Your task to perform on an android device: toggle data saver in the chrome app Image 0: 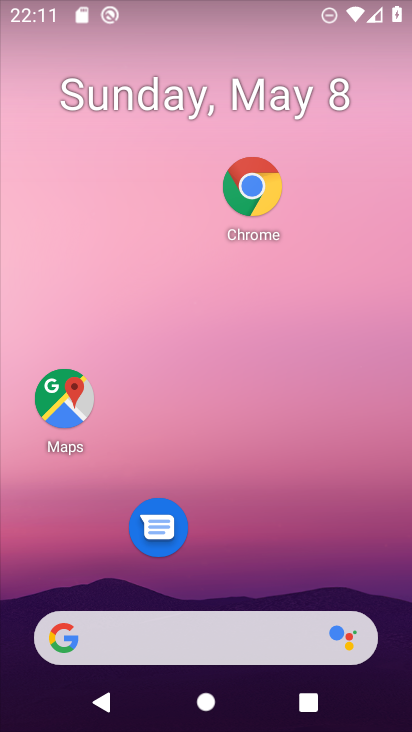
Step 0: drag from (271, 554) to (295, 307)
Your task to perform on an android device: toggle data saver in the chrome app Image 1: 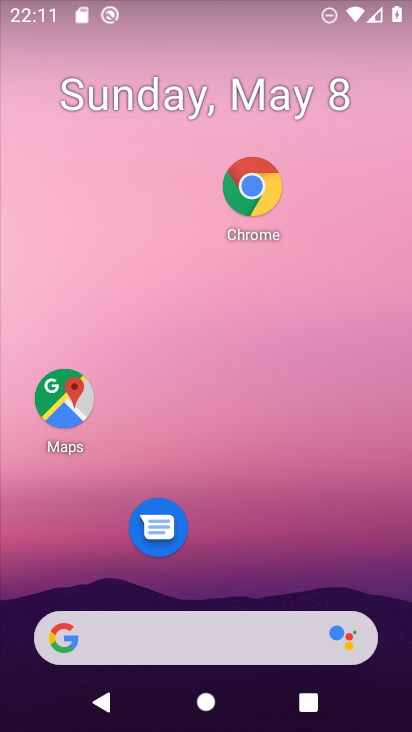
Step 1: drag from (259, 588) to (325, 303)
Your task to perform on an android device: toggle data saver in the chrome app Image 2: 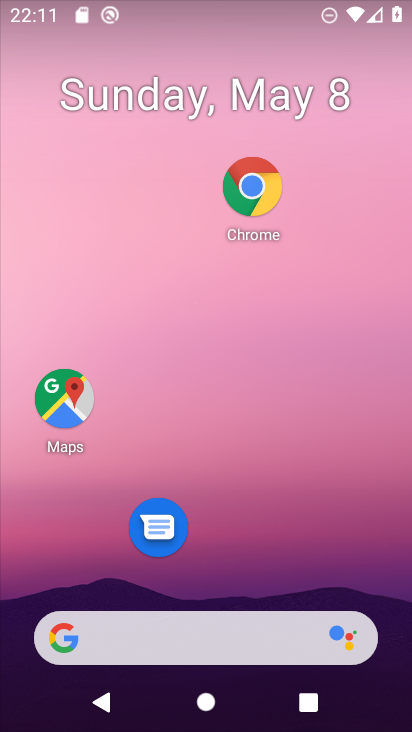
Step 2: drag from (275, 527) to (293, 230)
Your task to perform on an android device: toggle data saver in the chrome app Image 3: 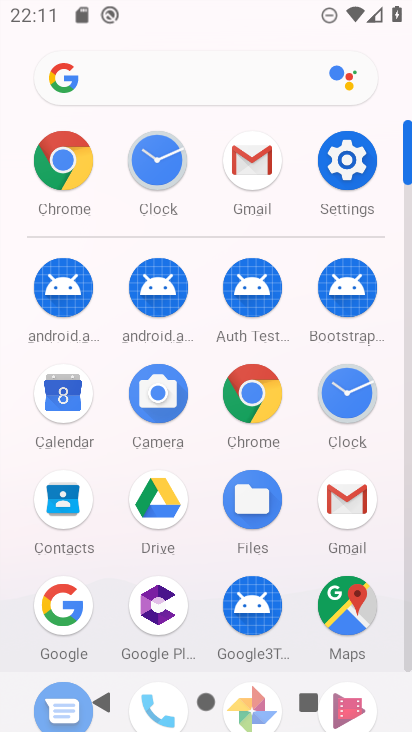
Step 3: click (245, 390)
Your task to perform on an android device: toggle data saver in the chrome app Image 4: 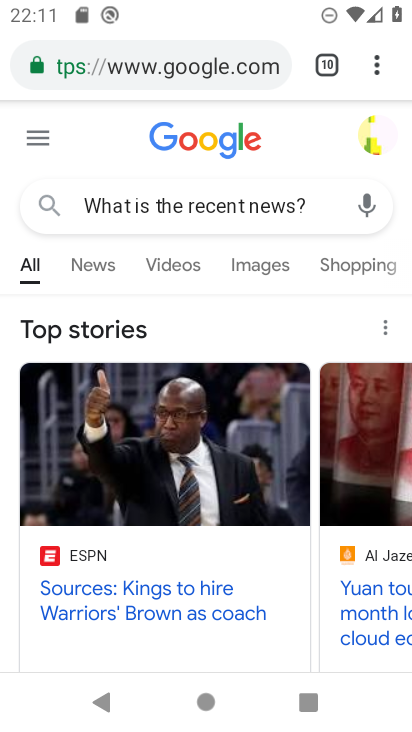
Step 4: click (365, 63)
Your task to perform on an android device: toggle data saver in the chrome app Image 5: 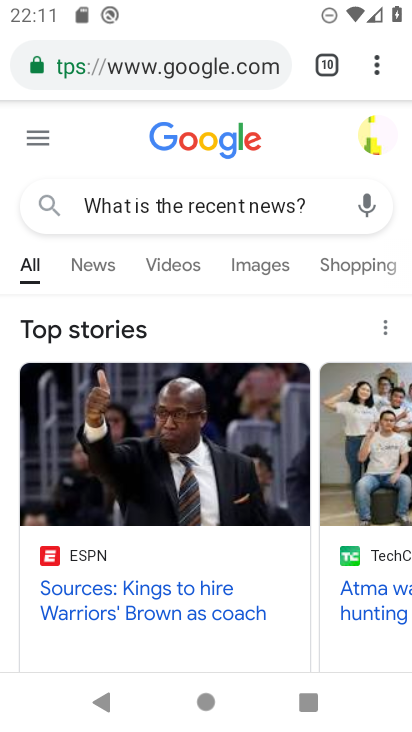
Step 5: click (367, 61)
Your task to perform on an android device: toggle data saver in the chrome app Image 6: 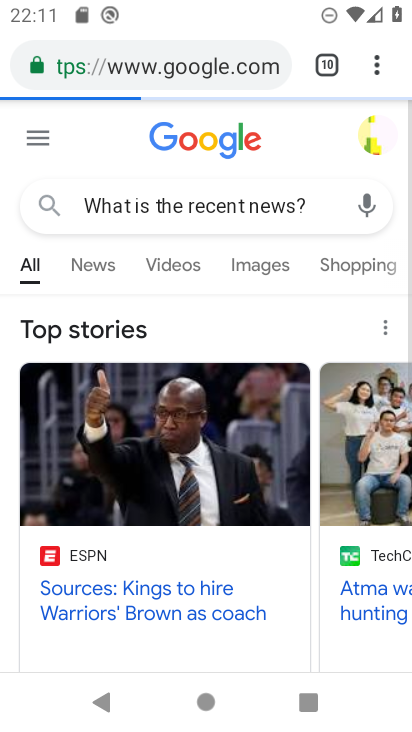
Step 6: click (371, 68)
Your task to perform on an android device: toggle data saver in the chrome app Image 7: 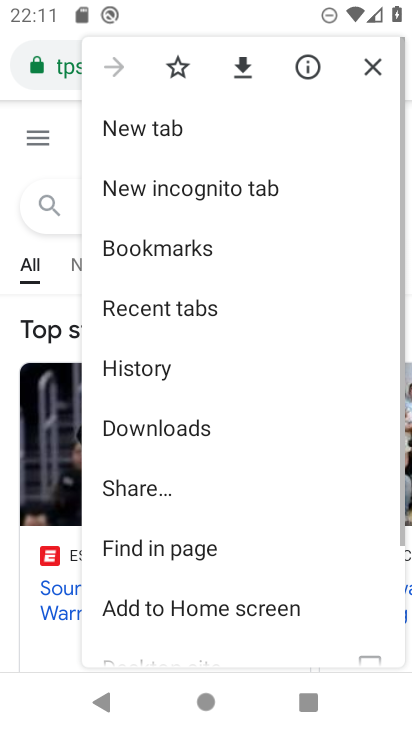
Step 7: drag from (195, 591) to (296, 158)
Your task to perform on an android device: toggle data saver in the chrome app Image 8: 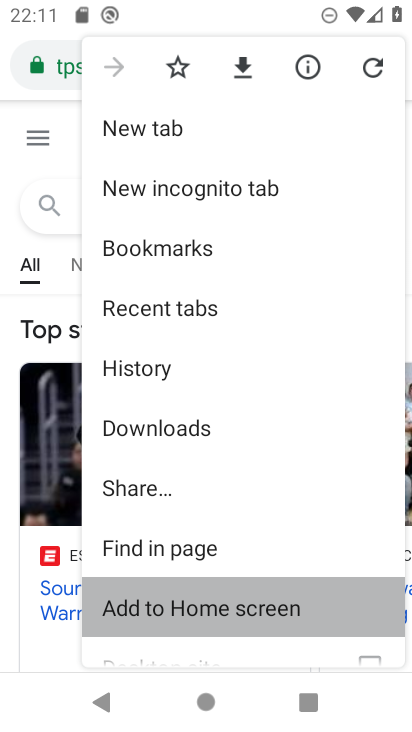
Step 8: drag from (277, 505) to (340, 201)
Your task to perform on an android device: toggle data saver in the chrome app Image 9: 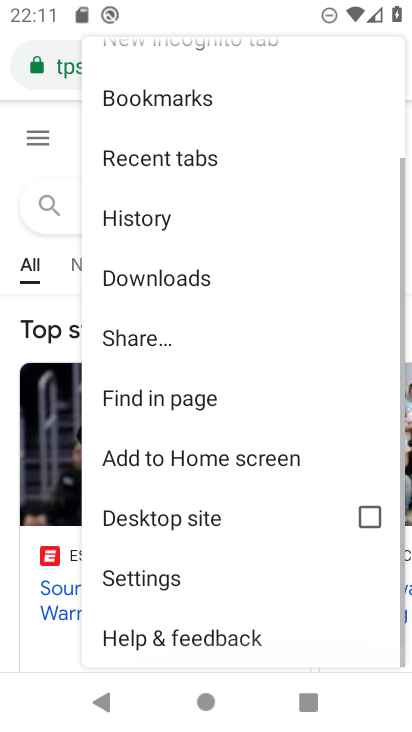
Step 9: drag from (238, 569) to (262, 223)
Your task to perform on an android device: toggle data saver in the chrome app Image 10: 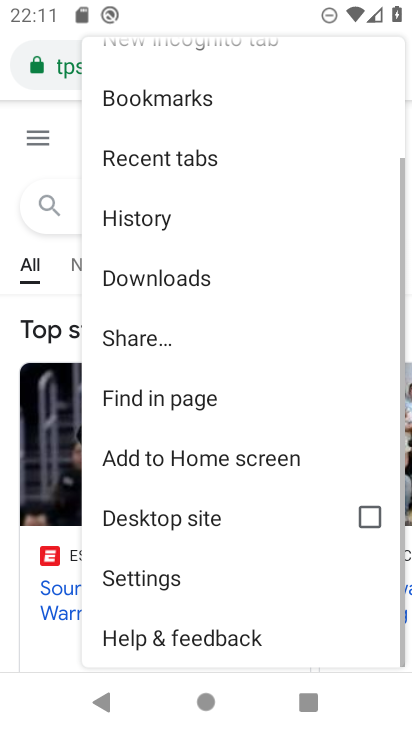
Step 10: click (195, 566)
Your task to perform on an android device: toggle data saver in the chrome app Image 11: 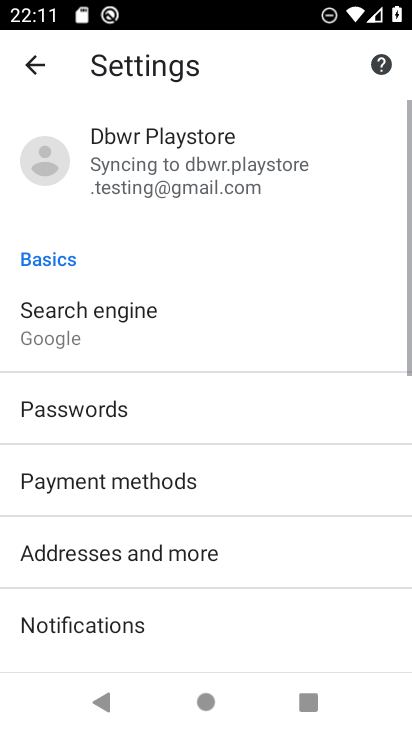
Step 11: drag from (203, 609) to (343, 125)
Your task to perform on an android device: toggle data saver in the chrome app Image 12: 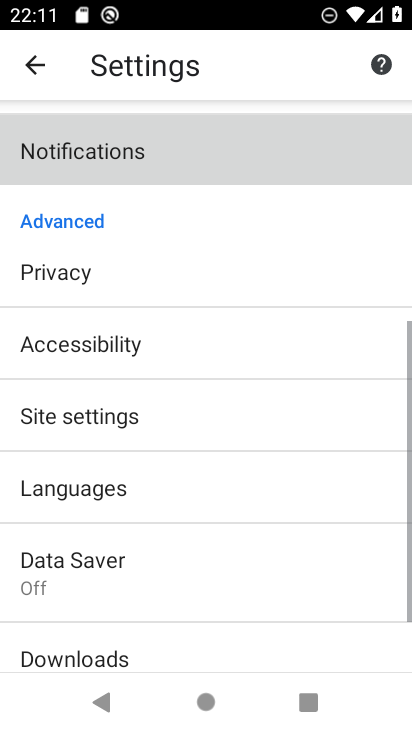
Step 12: drag from (307, 564) to (309, 277)
Your task to perform on an android device: toggle data saver in the chrome app Image 13: 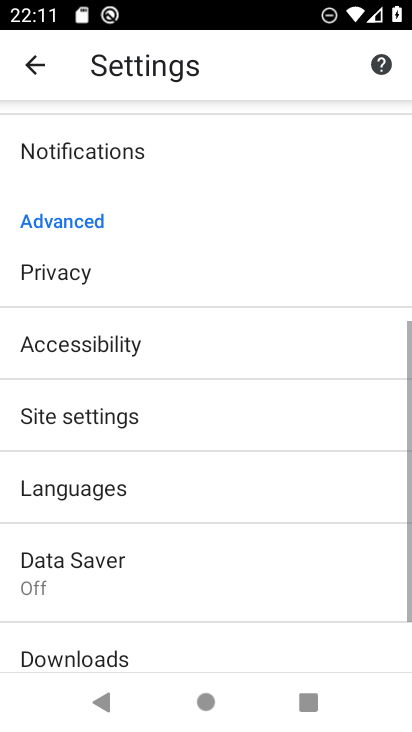
Step 13: drag from (262, 512) to (262, 236)
Your task to perform on an android device: toggle data saver in the chrome app Image 14: 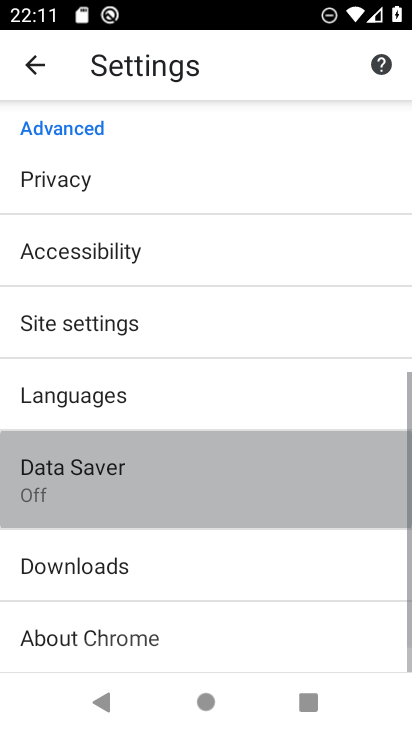
Step 14: drag from (217, 463) to (236, 271)
Your task to perform on an android device: toggle data saver in the chrome app Image 15: 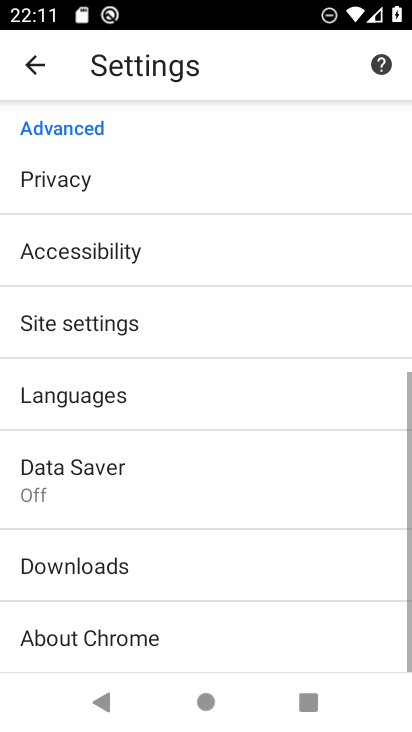
Step 15: click (134, 457)
Your task to perform on an android device: toggle data saver in the chrome app Image 16: 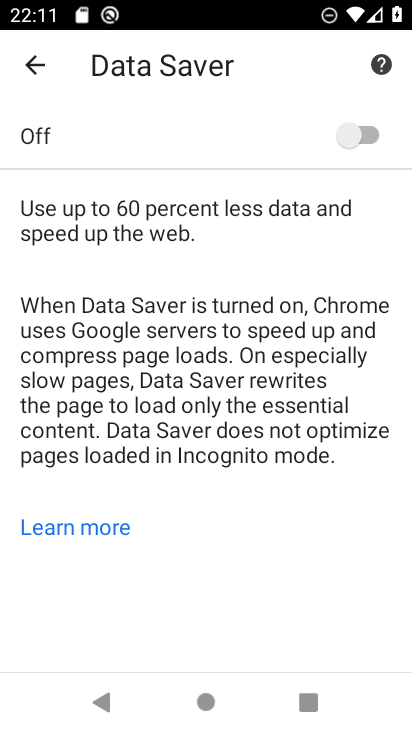
Step 16: click (348, 131)
Your task to perform on an android device: toggle data saver in the chrome app Image 17: 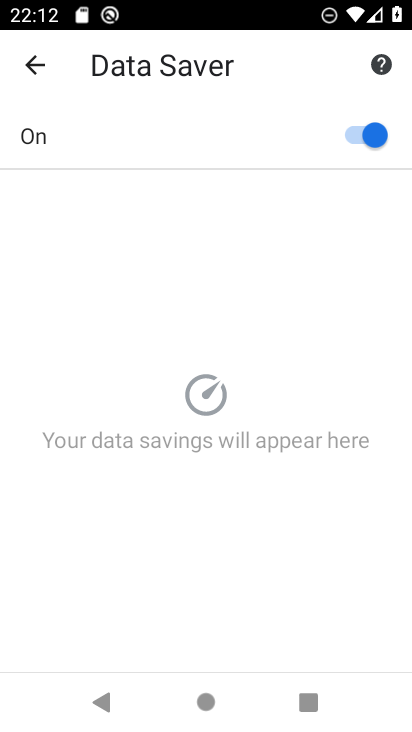
Step 17: task complete